Your task to perform on an android device: toggle data saver in the chrome app Image 0: 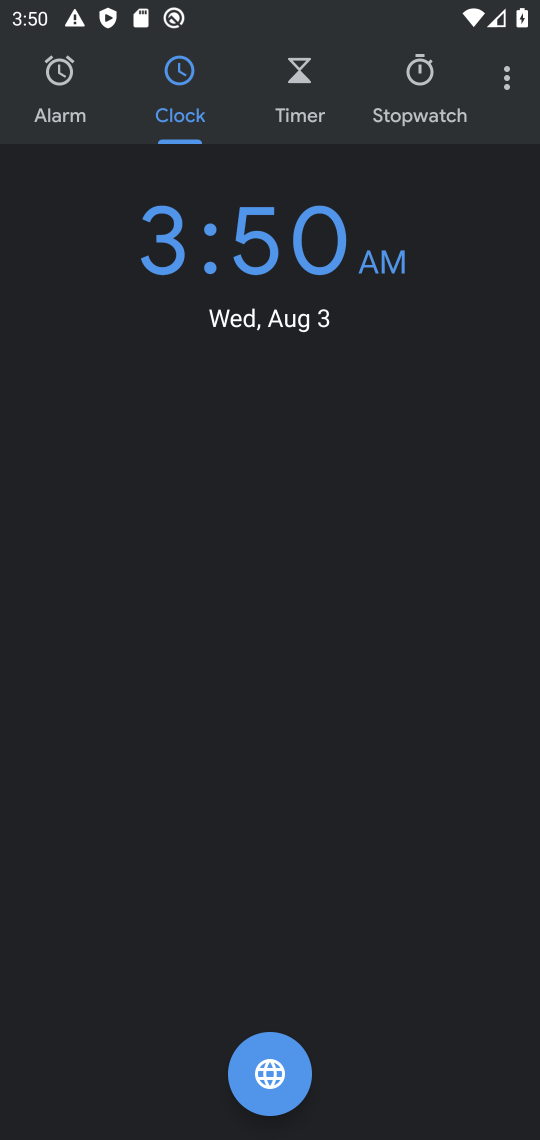
Step 0: press home button
Your task to perform on an android device: toggle data saver in the chrome app Image 1: 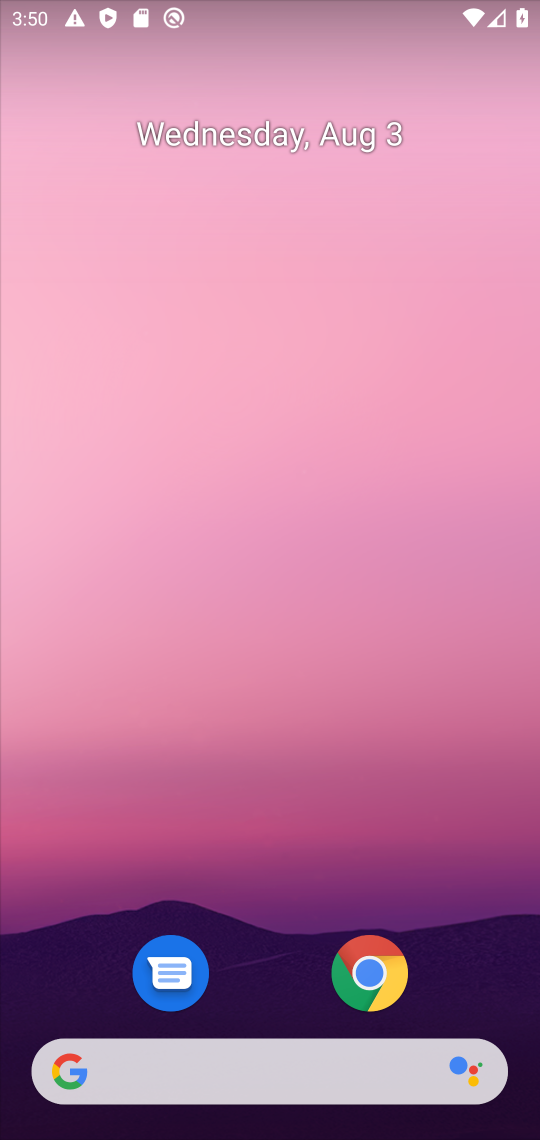
Step 1: click (384, 964)
Your task to perform on an android device: toggle data saver in the chrome app Image 2: 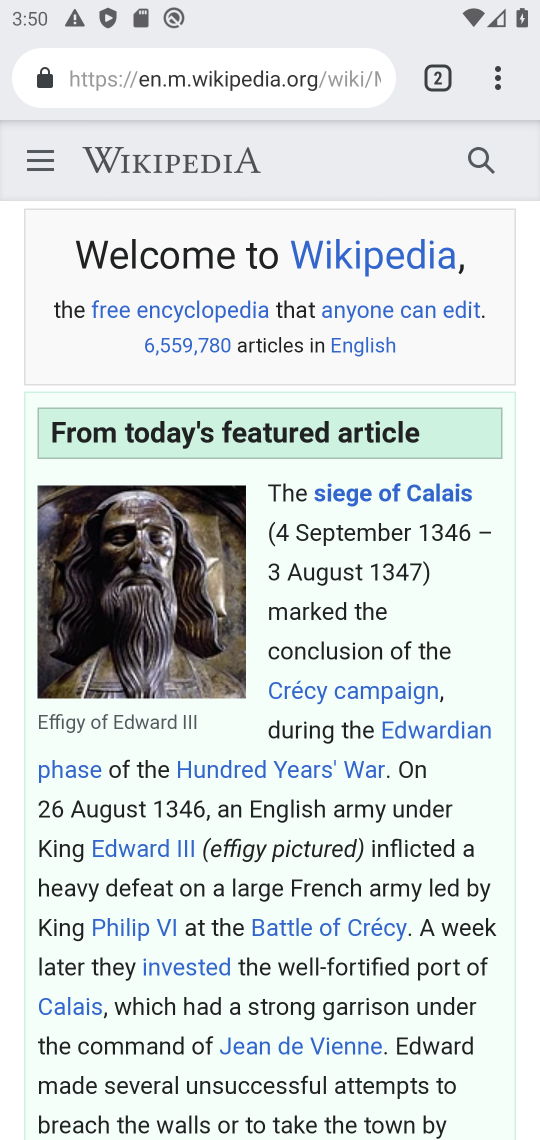
Step 2: click (499, 70)
Your task to perform on an android device: toggle data saver in the chrome app Image 3: 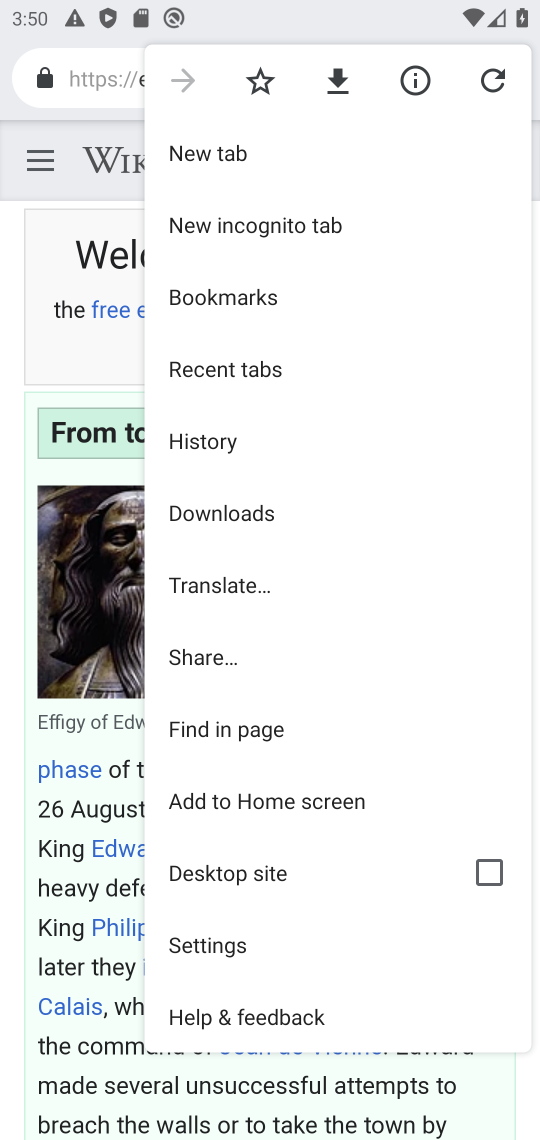
Step 3: click (230, 945)
Your task to perform on an android device: toggle data saver in the chrome app Image 4: 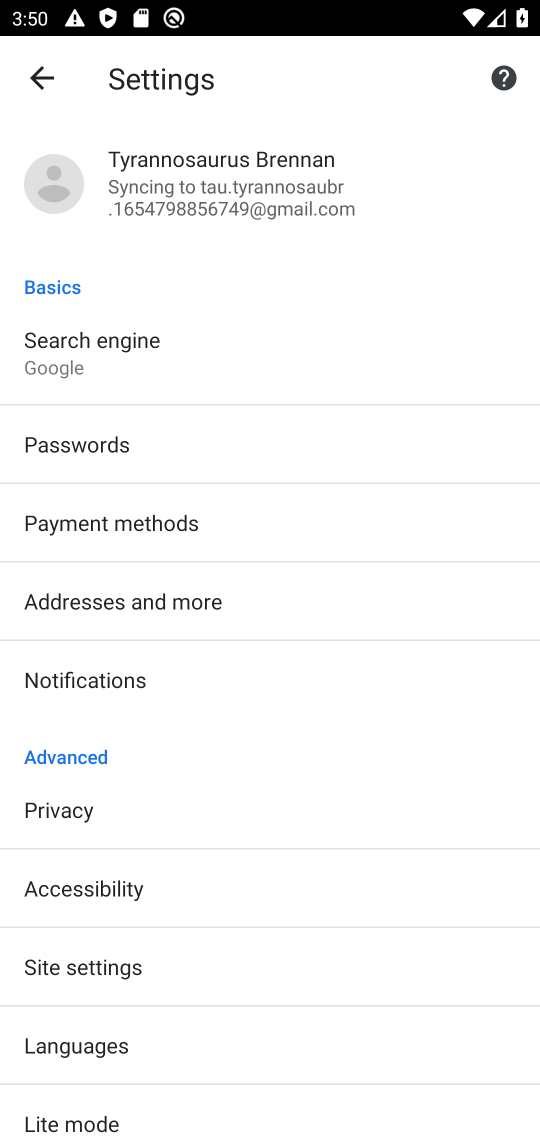
Step 4: drag from (227, 947) to (279, 762)
Your task to perform on an android device: toggle data saver in the chrome app Image 5: 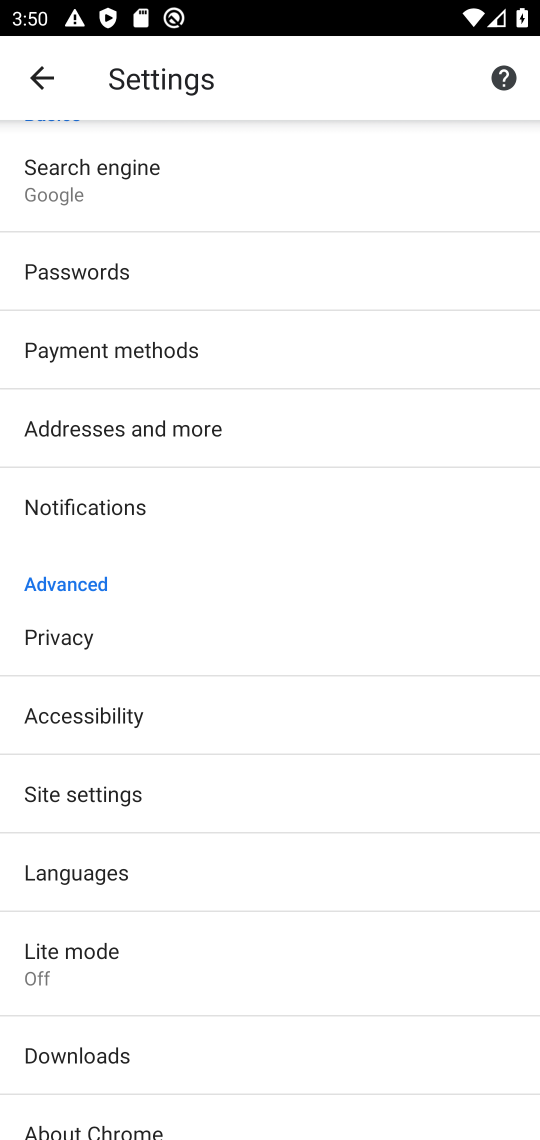
Step 5: click (266, 972)
Your task to perform on an android device: toggle data saver in the chrome app Image 6: 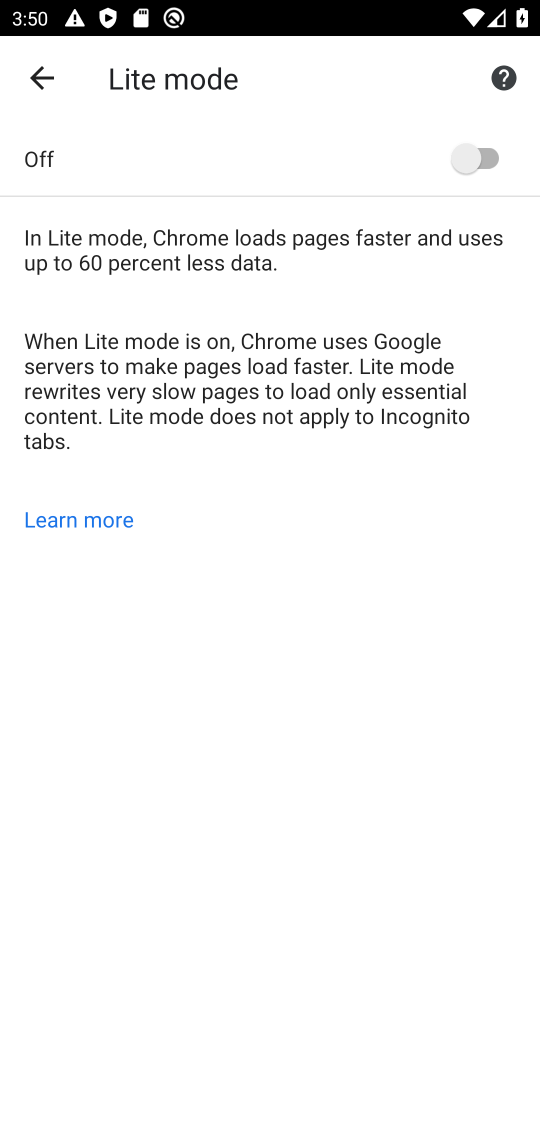
Step 6: click (479, 153)
Your task to perform on an android device: toggle data saver in the chrome app Image 7: 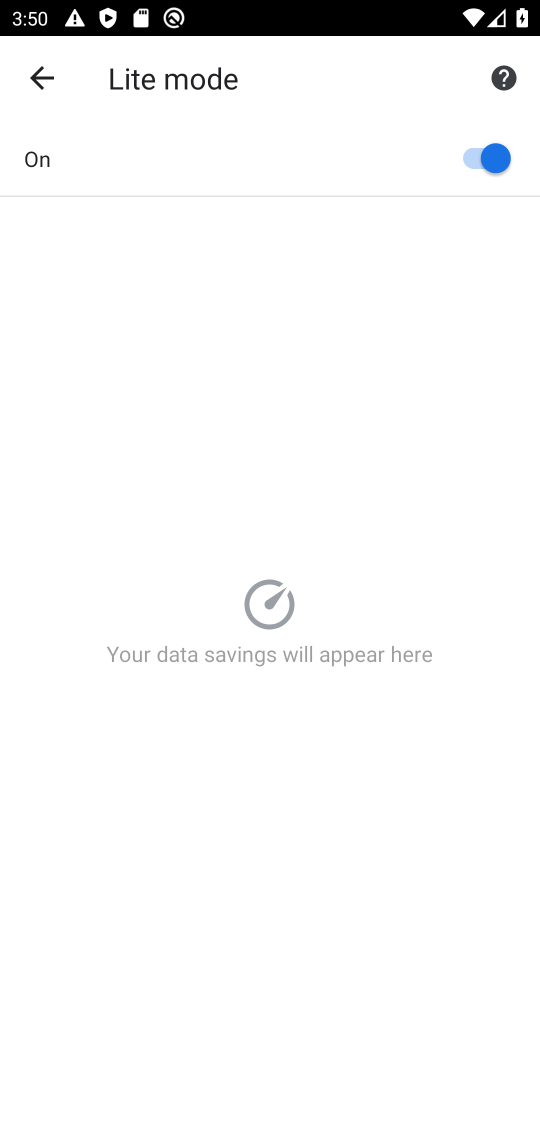
Step 7: task complete